Your task to perform on an android device: Open Google Chrome and open the bookmarks view Image 0: 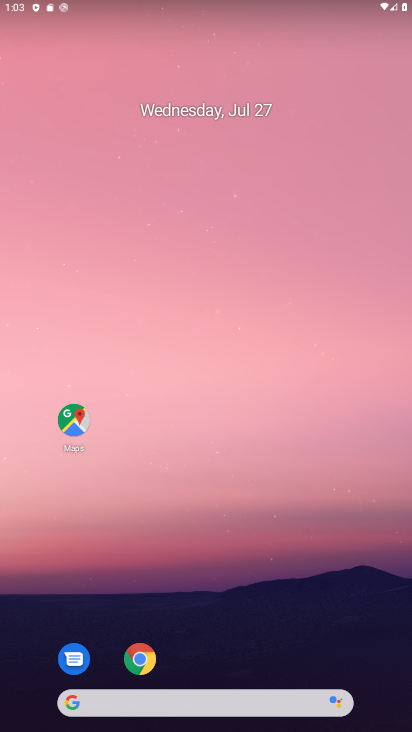
Step 0: drag from (338, 547) to (270, 27)
Your task to perform on an android device: Open Google Chrome and open the bookmarks view Image 1: 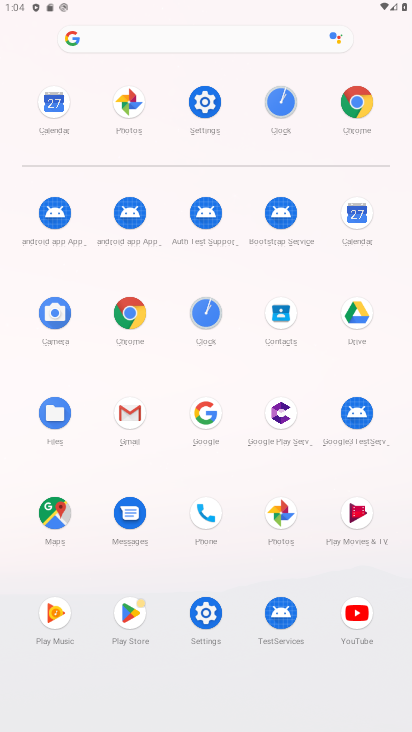
Step 1: click (359, 108)
Your task to perform on an android device: Open Google Chrome and open the bookmarks view Image 2: 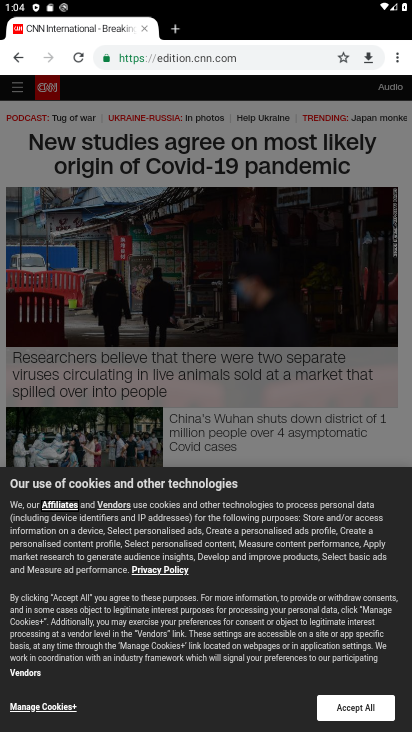
Step 2: task complete